Your task to perform on an android device: toggle show notifications on the lock screen Image 0: 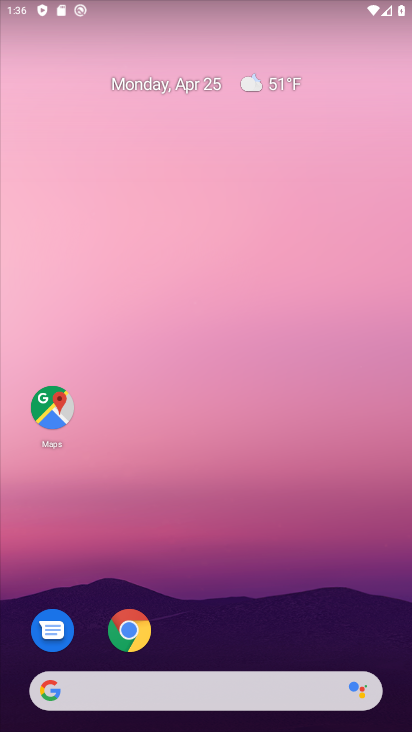
Step 0: drag from (305, 593) to (297, 71)
Your task to perform on an android device: toggle show notifications on the lock screen Image 1: 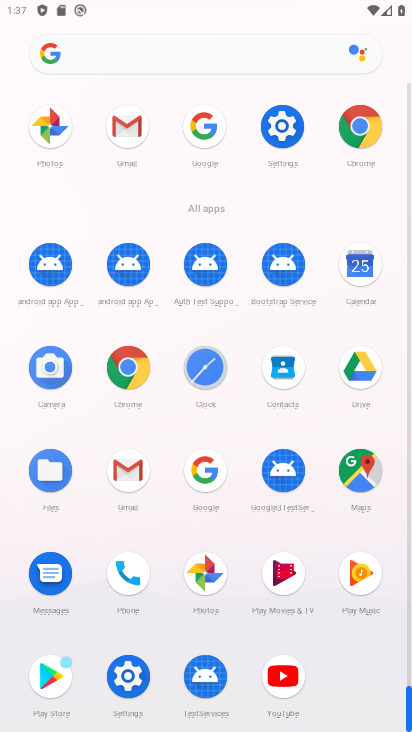
Step 1: click (271, 137)
Your task to perform on an android device: toggle show notifications on the lock screen Image 2: 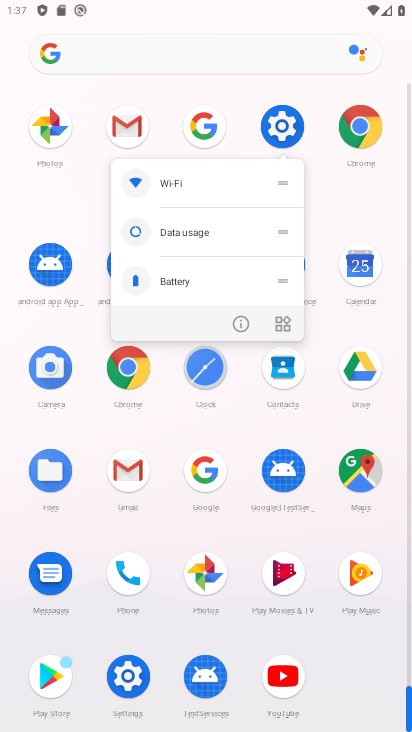
Step 2: click (271, 136)
Your task to perform on an android device: toggle show notifications on the lock screen Image 3: 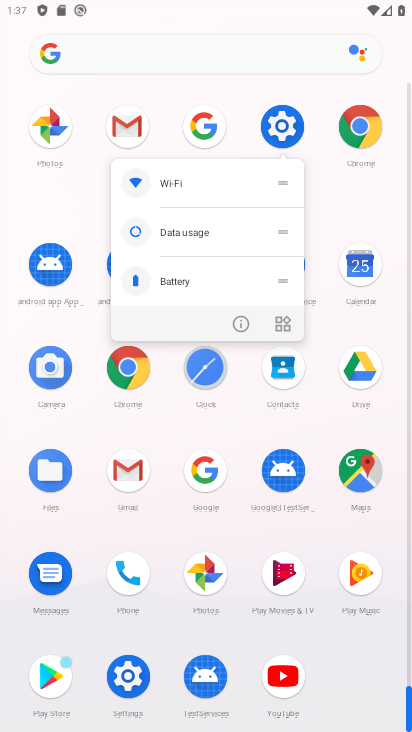
Step 3: click (291, 111)
Your task to perform on an android device: toggle show notifications on the lock screen Image 4: 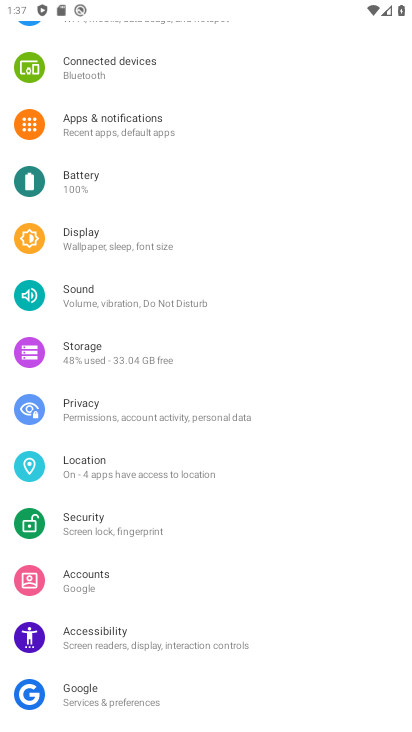
Step 4: drag from (202, 173) to (204, 568)
Your task to perform on an android device: toggle show notifications on the lock screen Image 5: 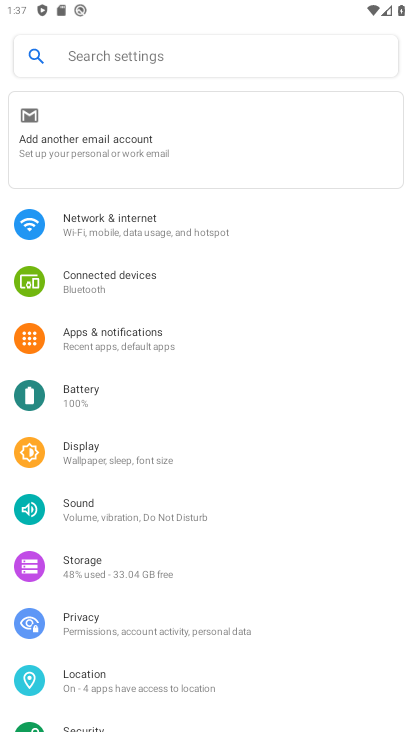
Step 5: click (125, 343)
Your task to perform on an android device: toggle show notifications on the lock screen Image 6: 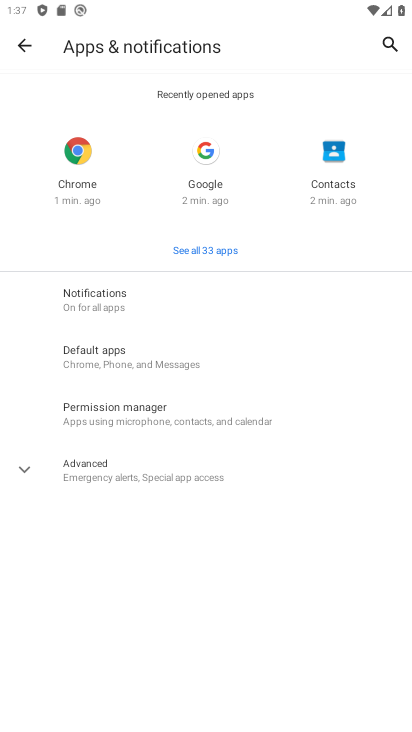
Step 6: click (111, 295)
Your task to perform on an android device: toggle show notifications on the lock screen Image 7: 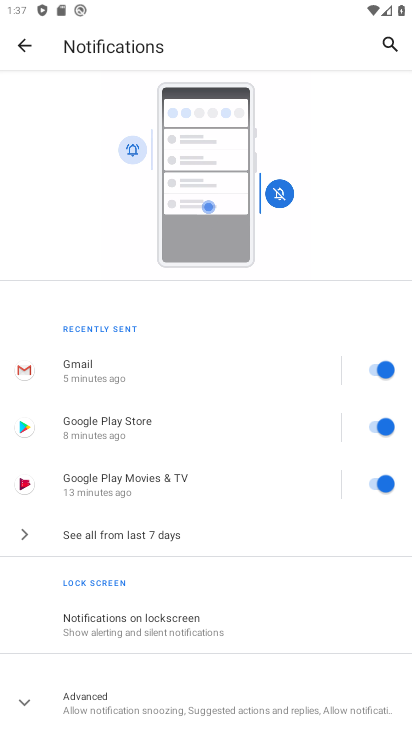
Step 7: drag from (209, 642) to (222, 214)
Your task to perform on an android device: toggle show notifications on the lock screen Image 8: 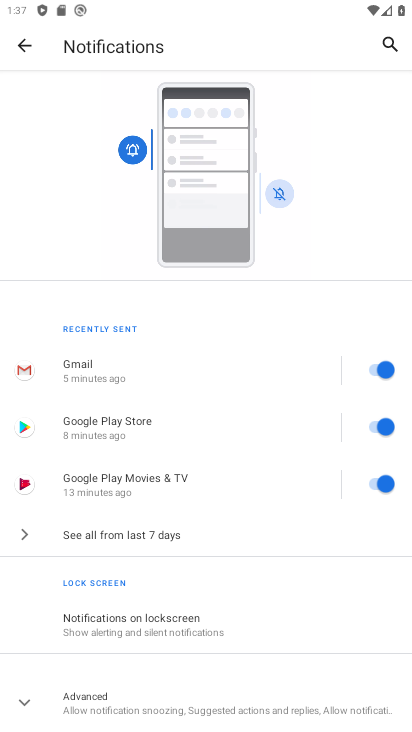
Step 8: click (188, 631)
Your task to perform on an android device: toggle show notifications on the lock screen Image 9: 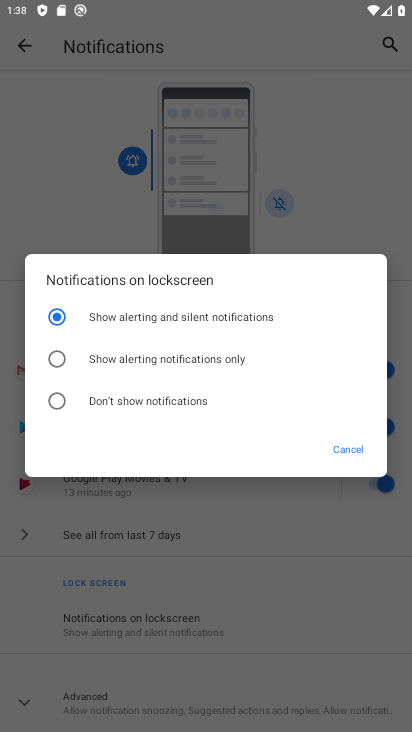
Step 9: click (63, 364)
Your task to perform on an android device: toggle show notifications on the lock screen Image 10: 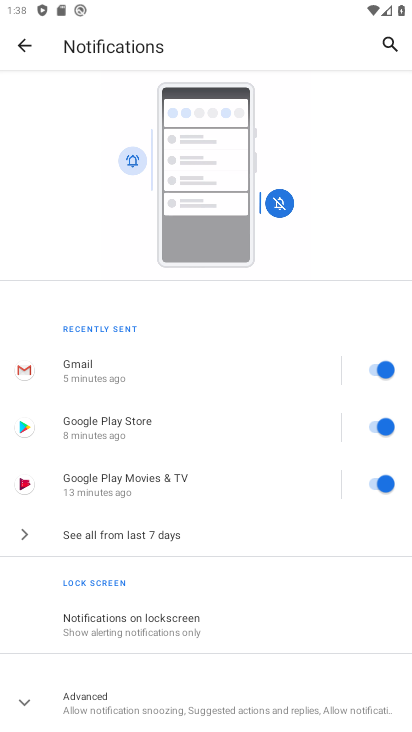
Step 10: task complete